Your task to perform on an android device: Go to Reddit.com Image 0: 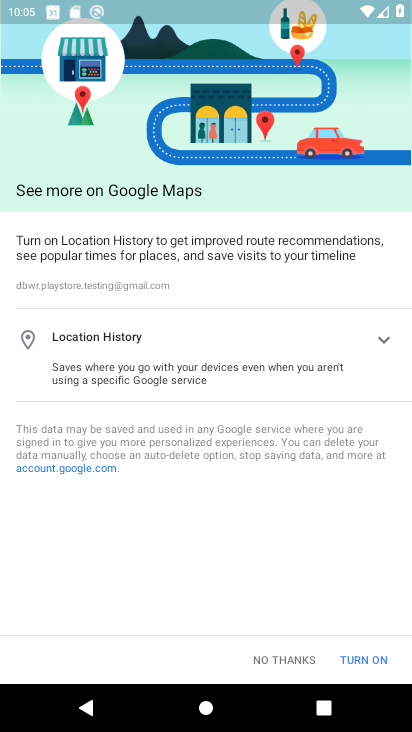
Step 0: press home button
Your task to perform on an android device: Go to Reddit.com Image 1: 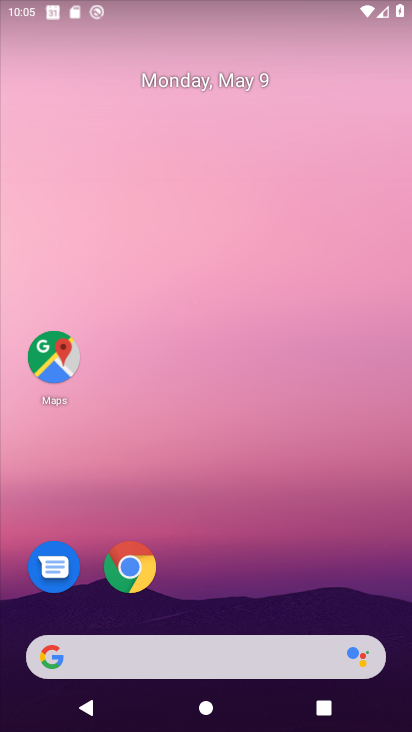
Step 1: drag from (101, 631) to (164, 279)
Your task to perform on an android device: Go to Reddit.com Image 2: 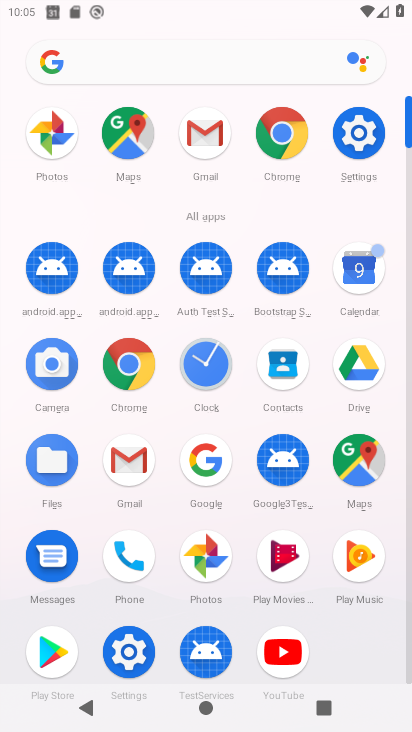
Step 2: click (185, 460)
Your task to perform on an android device: Go to Reddit.com Image 3: 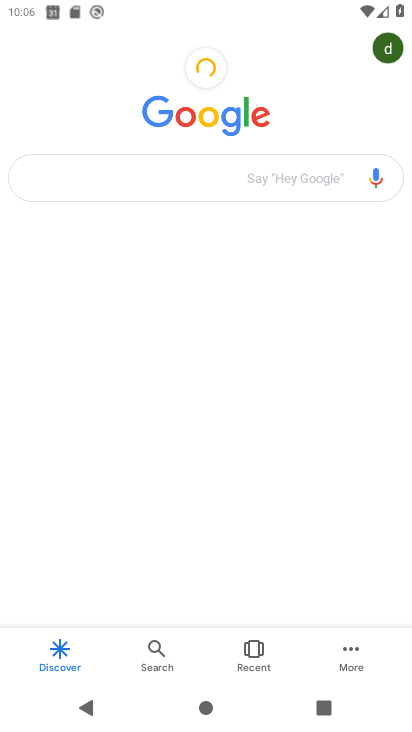
Step 3: click (63, 175)
Your task to perform on an android device: Go to Reddit.com Image 4: 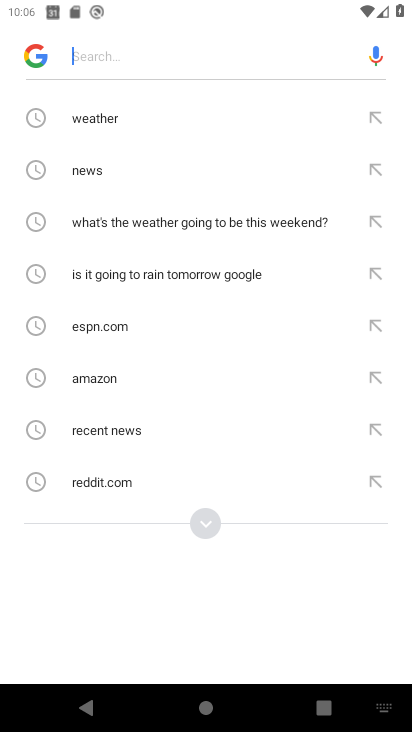
Step 4: click (120, 481)
Your task to perform on an android device: Go to Reddit.com Image 5: 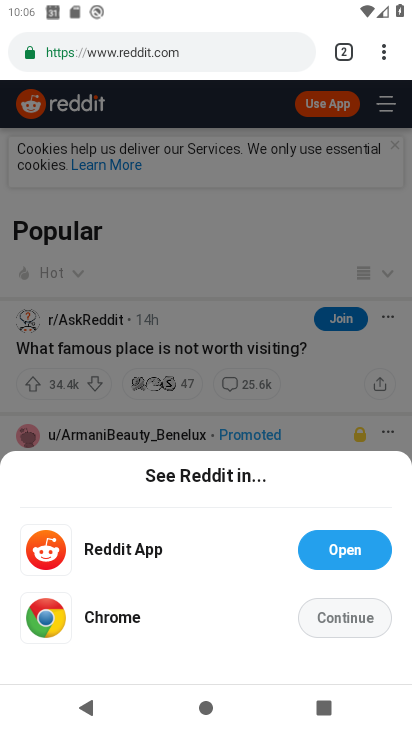
Step 5: click (130, 117)
Your task to perform on an android device: Go to Reddit.com Image 6: 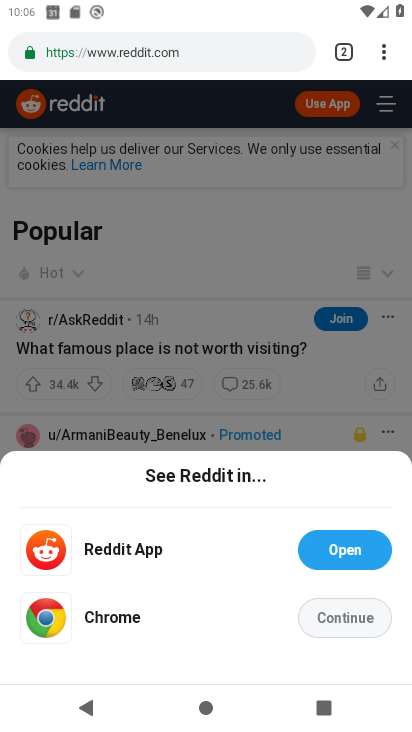
Step 6: task complete